Your task to perform on an android device: Go to display settings Image 0: 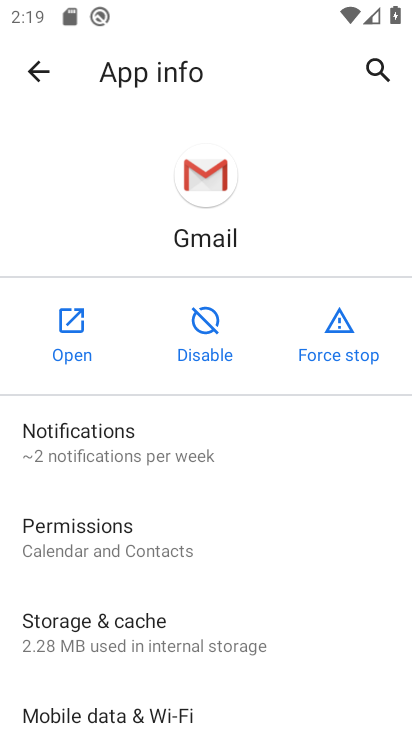
Step 0: press home button
Your task to perform on an android device: Go to display settings Image 1: 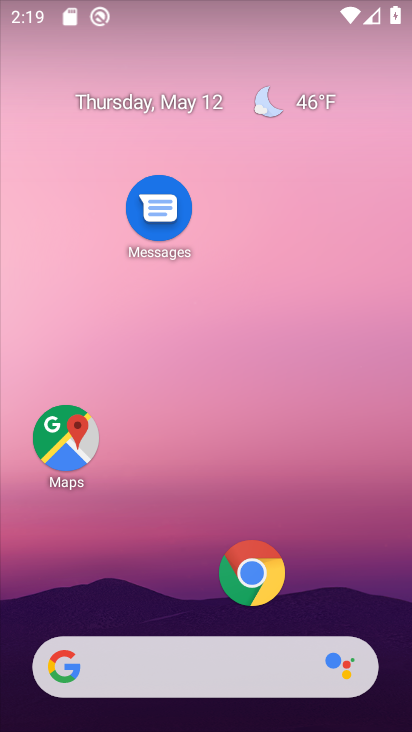
Step 1: drag from (181, 638) to (238, 74)
Your task to perform on an android device: Go to display settings Image 2: 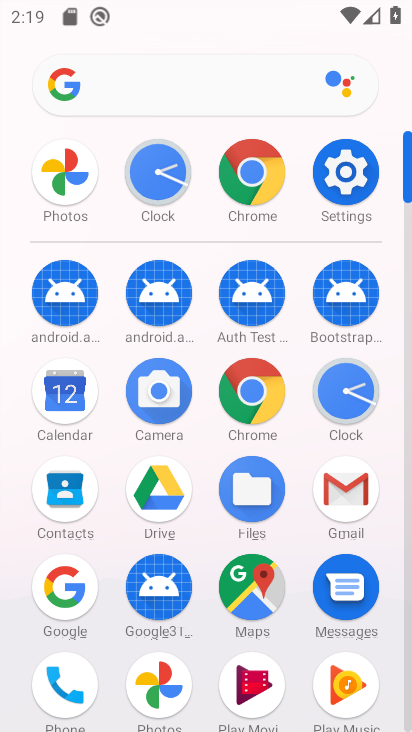
Step 2: click (341, 172)
Your task to perform on an android device: Go to display settings Image 3: 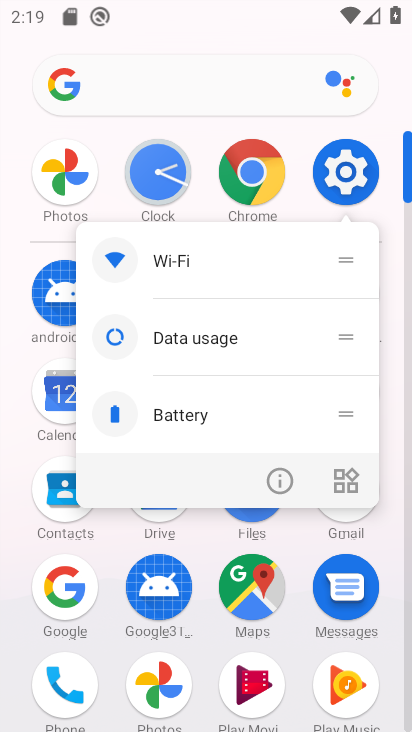
Step 3: click (271, 473)
Your task to perform on an android device: Go to display settings Image 4: 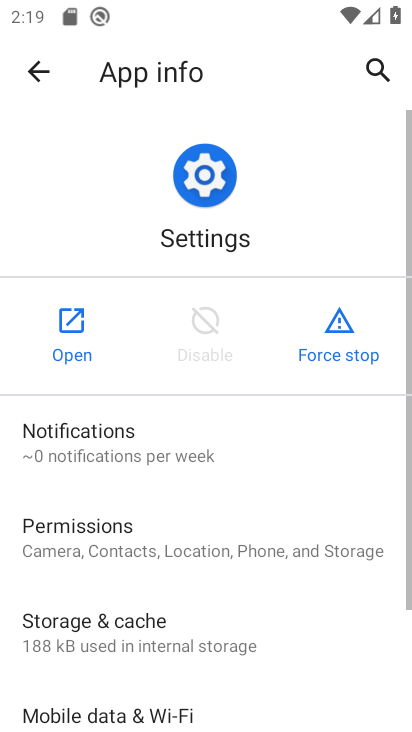
Step 4: click (56, 347)
Your task to perform on an android device: Go to display settings Image 5: 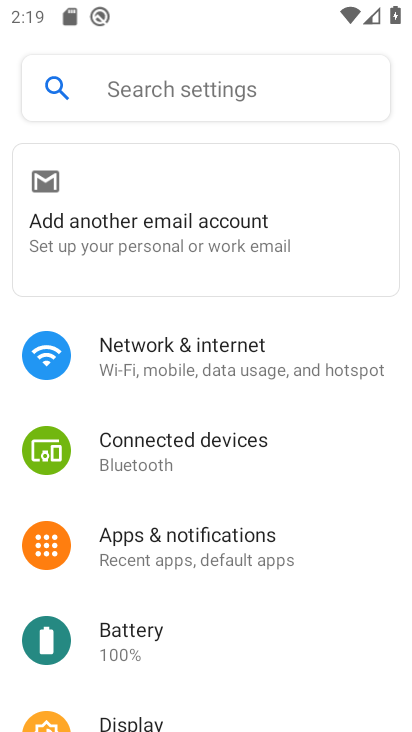
Step 5: click (170, 716)
Your task to perform on an android device: Go to display settings Image 6: 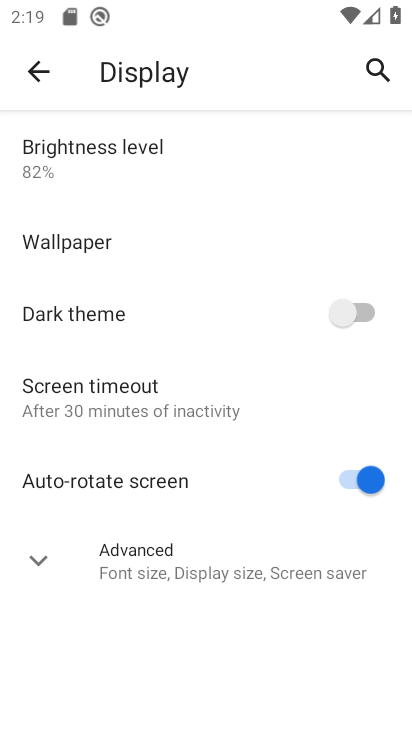
Step 6: task complete